Your task to perform on an android device: Empty the shopping cart on target. Search for bose quietcomfort 35 on target, select the first entry, add it to the cart, then select checkout. Image 0: 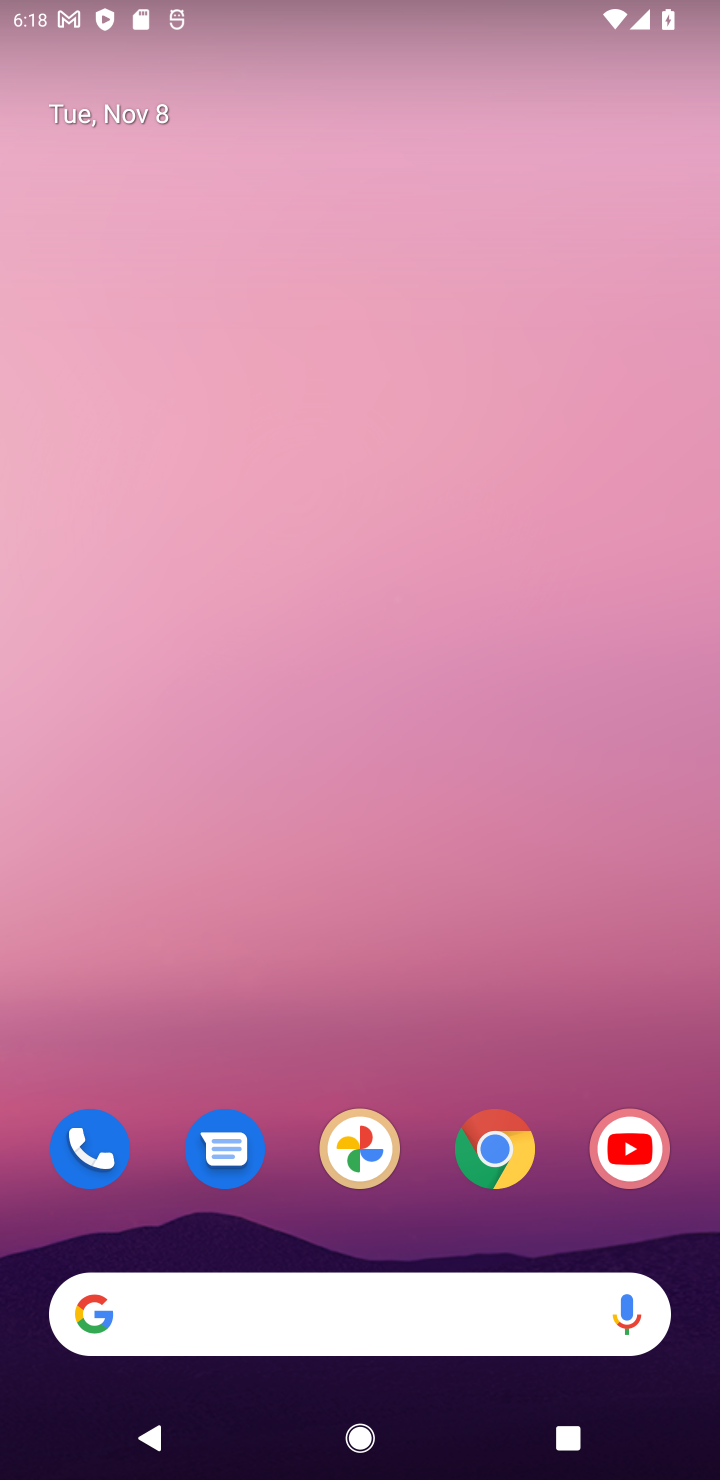
Step 0: click (486, 1156)
Your task to perform on an android device: Empty the shopping cart on target. Search for bose quietcomfort 35 on target, select the first entry, add it to the cart, then select checkout. Image 1: 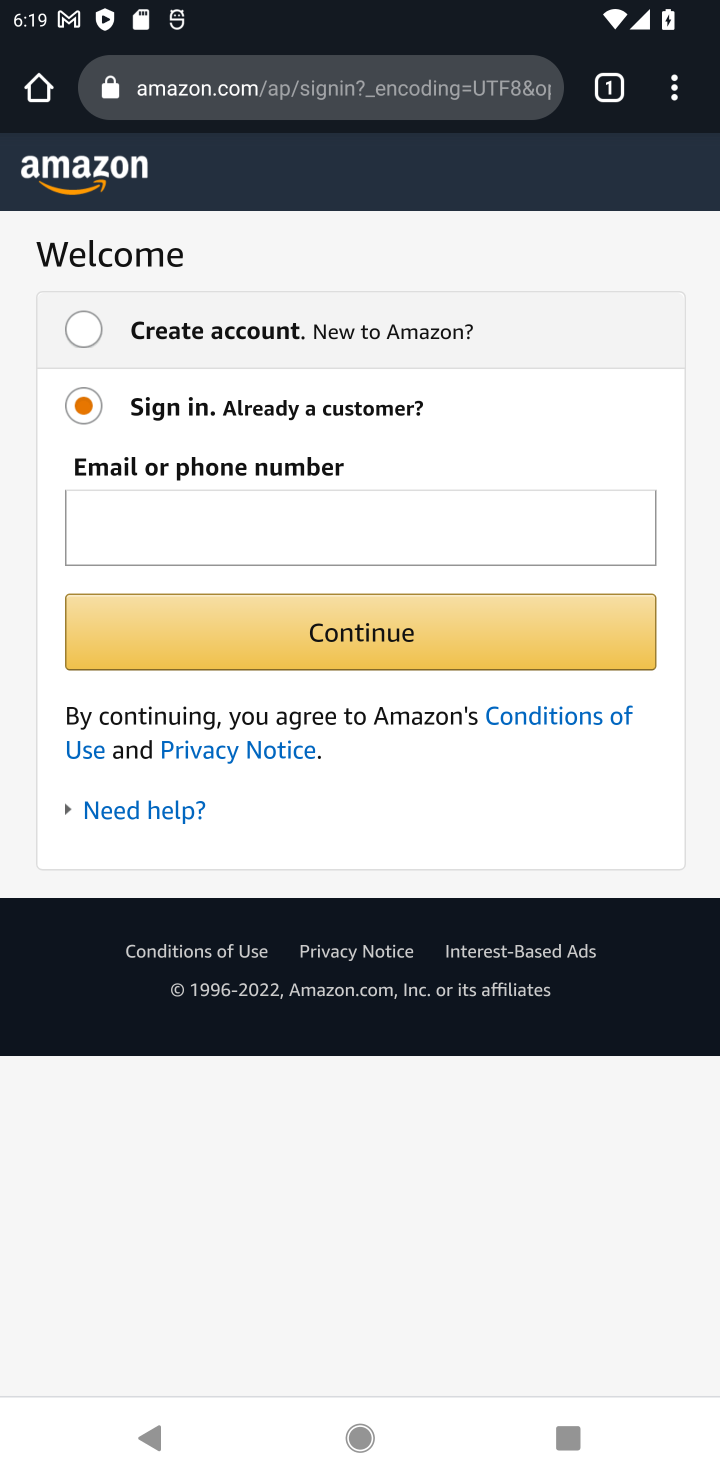
Step 1: click (347, 84)
Your task to perform on an android device: Empty the shopping cart on target. Search for bose quietcomfort 35 on target, select the first entry, add it to the cart, then select checkout. Image 2: 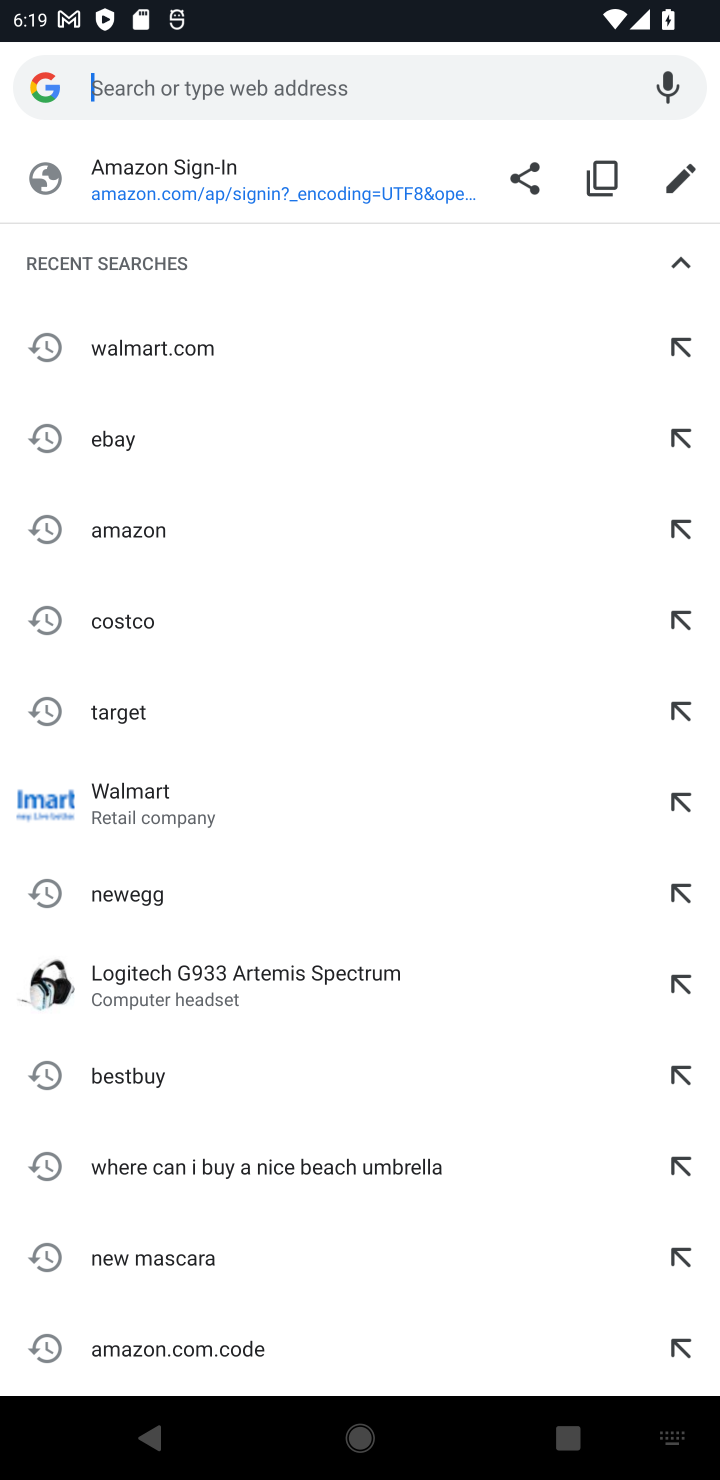
Step 2: type "target"
Your task to perform on an android device: Empty the shopping cart on target. Search for bose quietcomfort 35 on target, select the first entry, add it to the cart, then select checkout. Image 3: 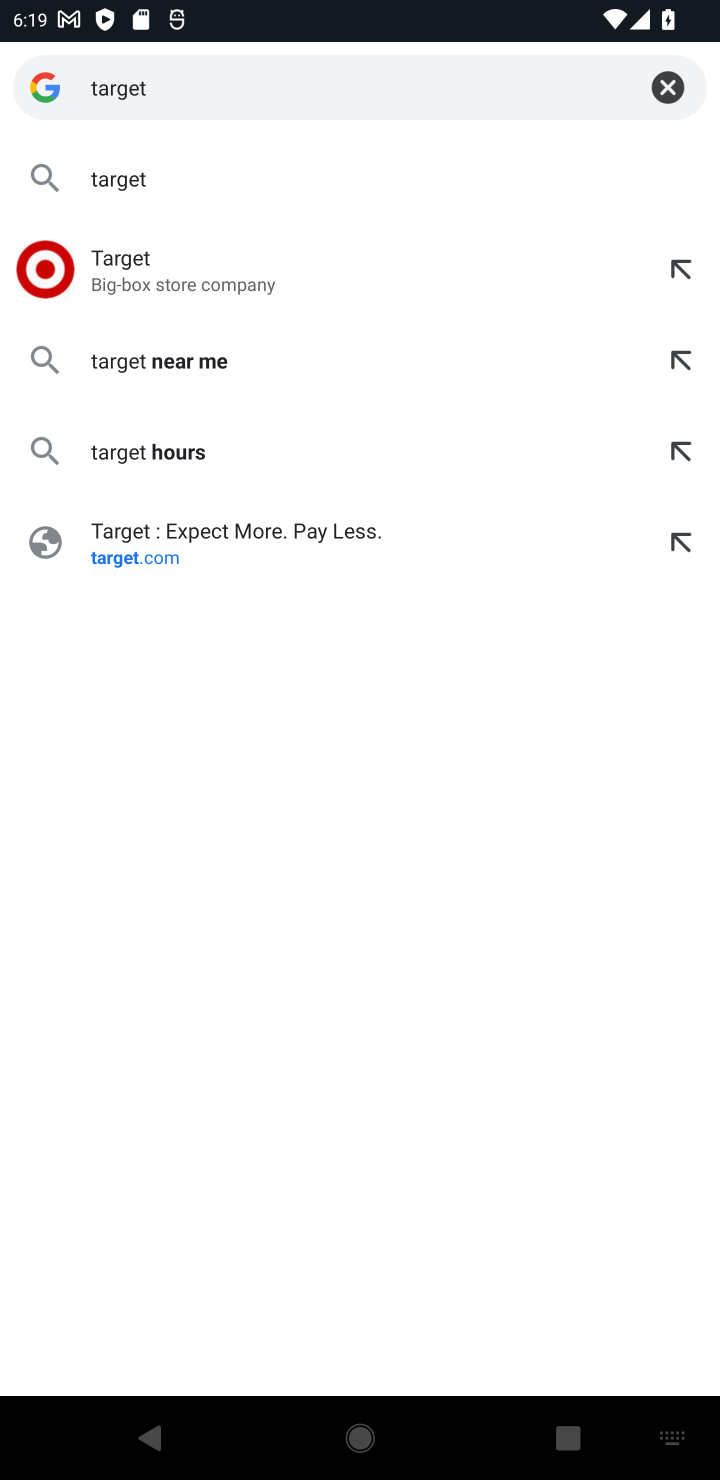
Step 3: click (214, 295)
Your task to perform on an android device: Empty the shopping cart on target. Search for bose quietcomfort 35 on target, select the first entry, add it to the cart, then select checkout. Image 4: 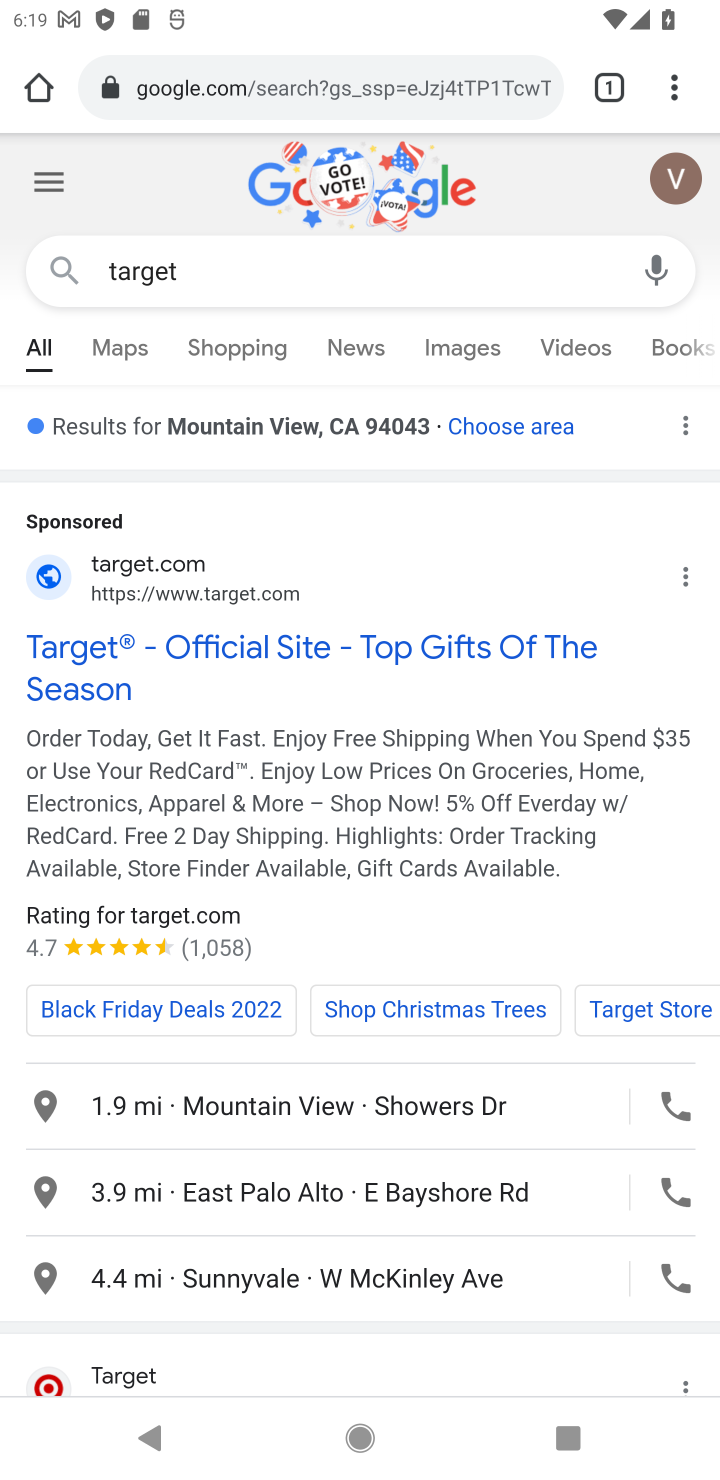
Step 4: click (220, 589)
Your task to perform on an android device: Empty the shopping cart on target. Search for bose quietcomfort 35 on target, select the first entry, add it to the cart, then select checkout. Image 5: 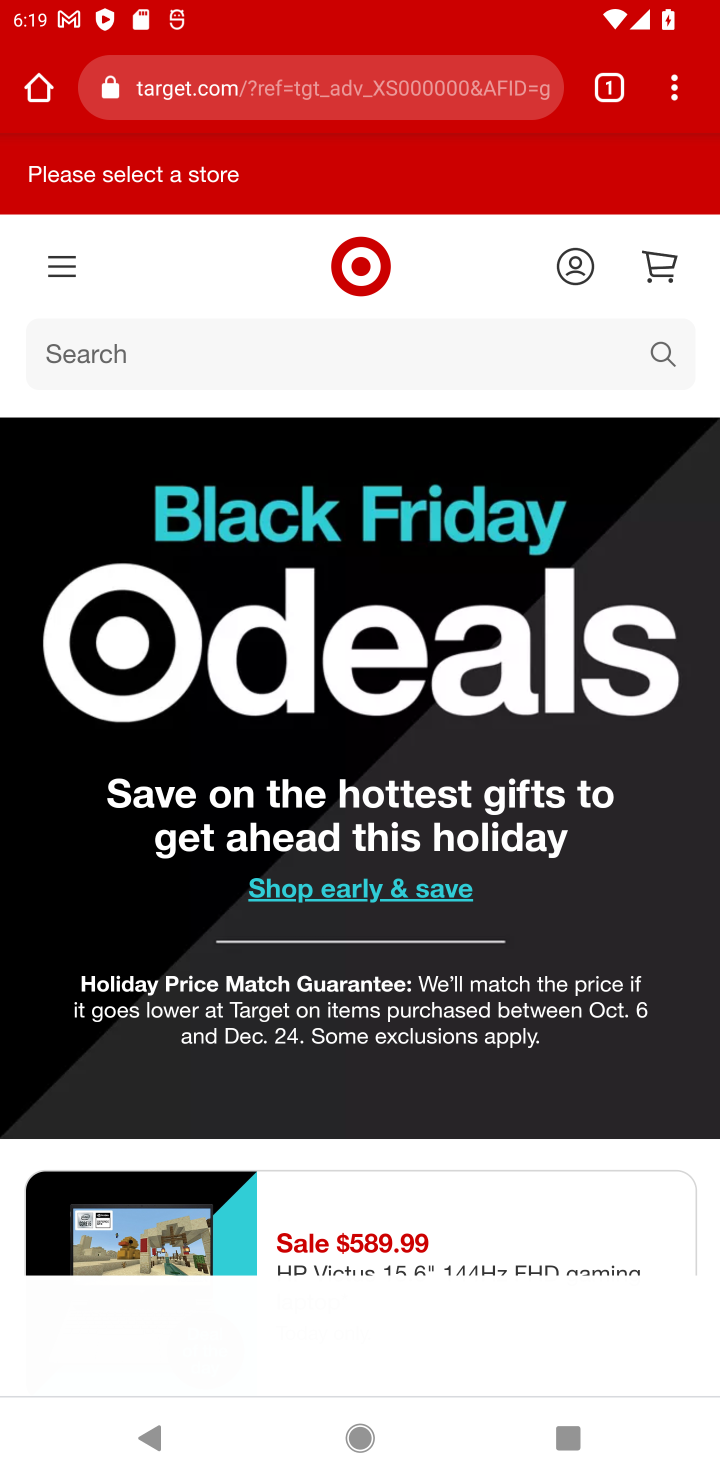
Step 5: click (658, 263)
Your task to perform on an android device: Empty the shopping cart on target. Search for bose quietcomfort 35 on target, select the first entry, add it to the cart, then select checkout. Image 6: 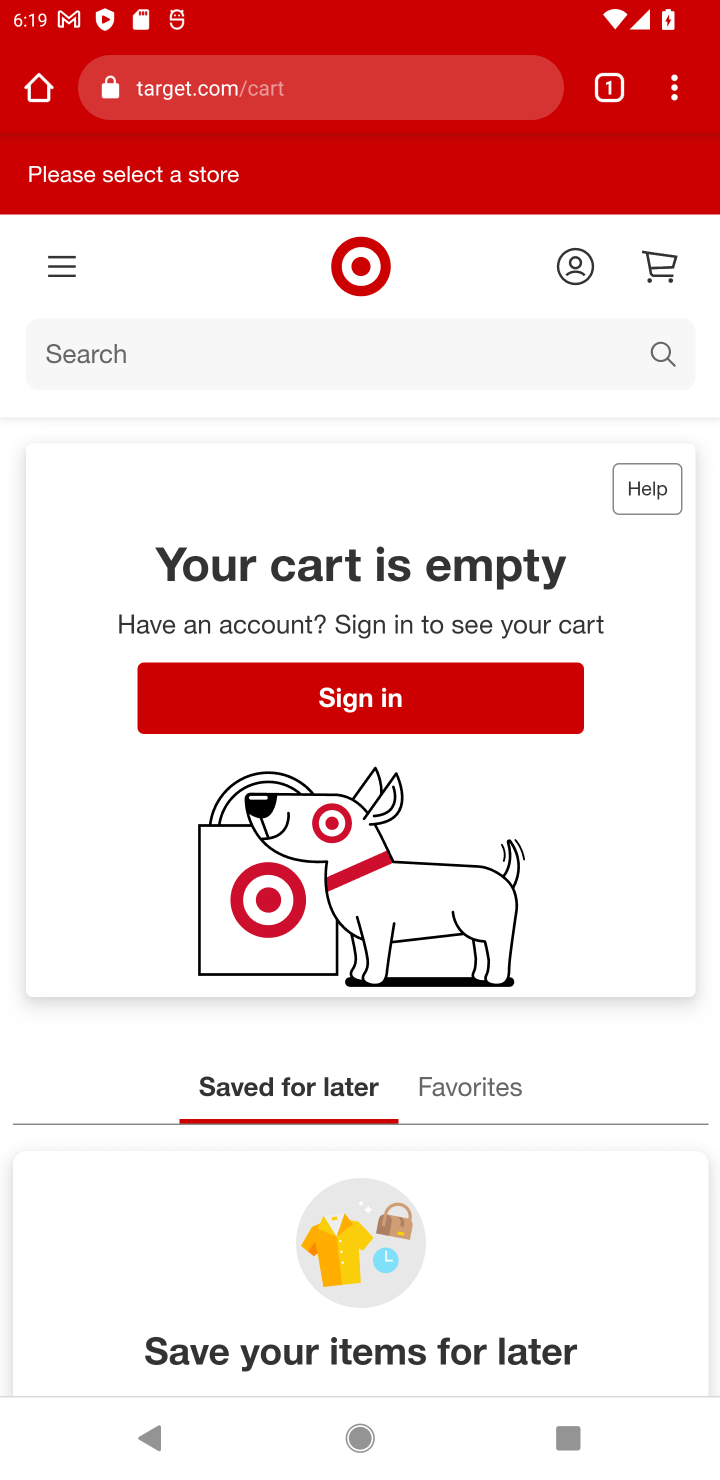
Step 6: click (663, 348)
Your task to perform on an android device: Empty the shopping cart on target. Search for bose quietcomfort 35 on target, select the first entry, add it to the cart, then select checkout. Image 7: 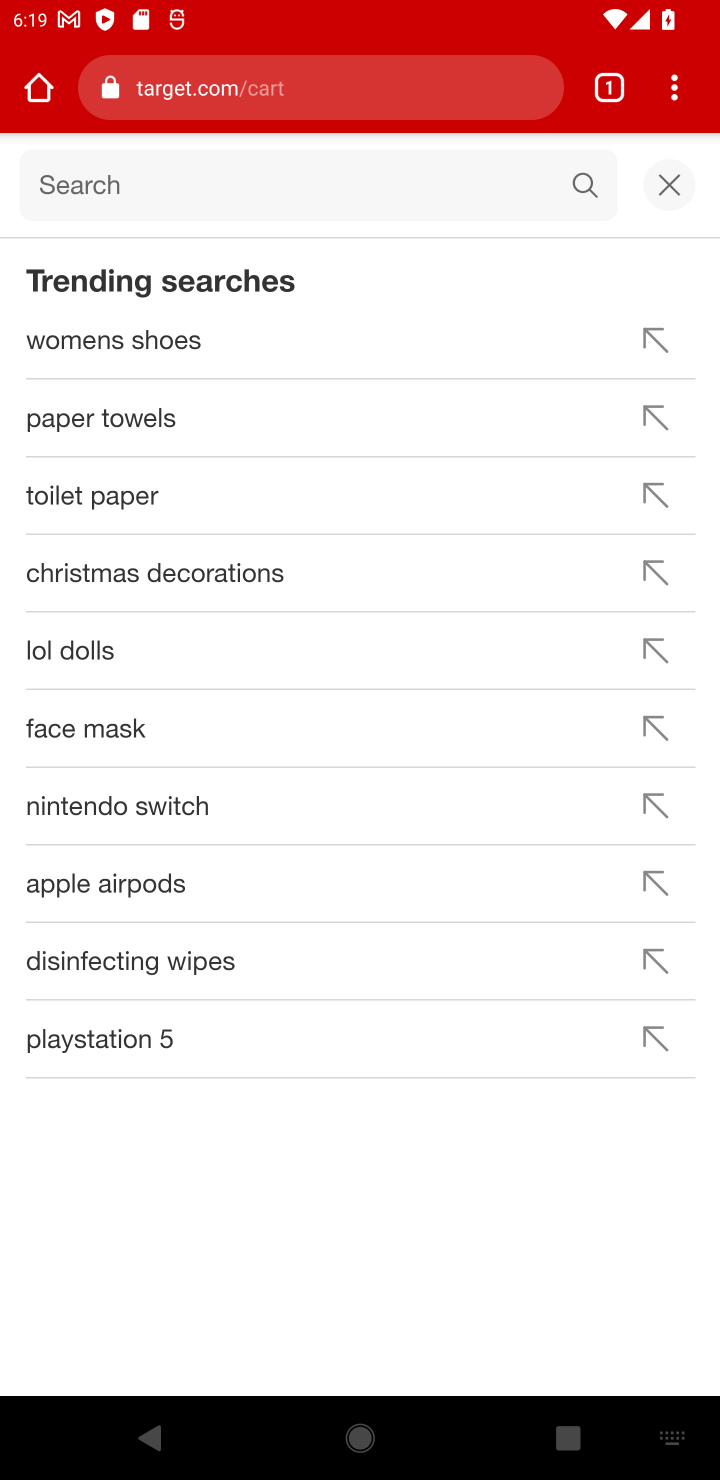
Step 7: type "bose quietcomfort 35"
Your task to perform on an android device: Empty the shopping cart on target. Search for bose quietcomfort 35 on target, select the first entry, add it to the cart, then select checkout. Image 8: 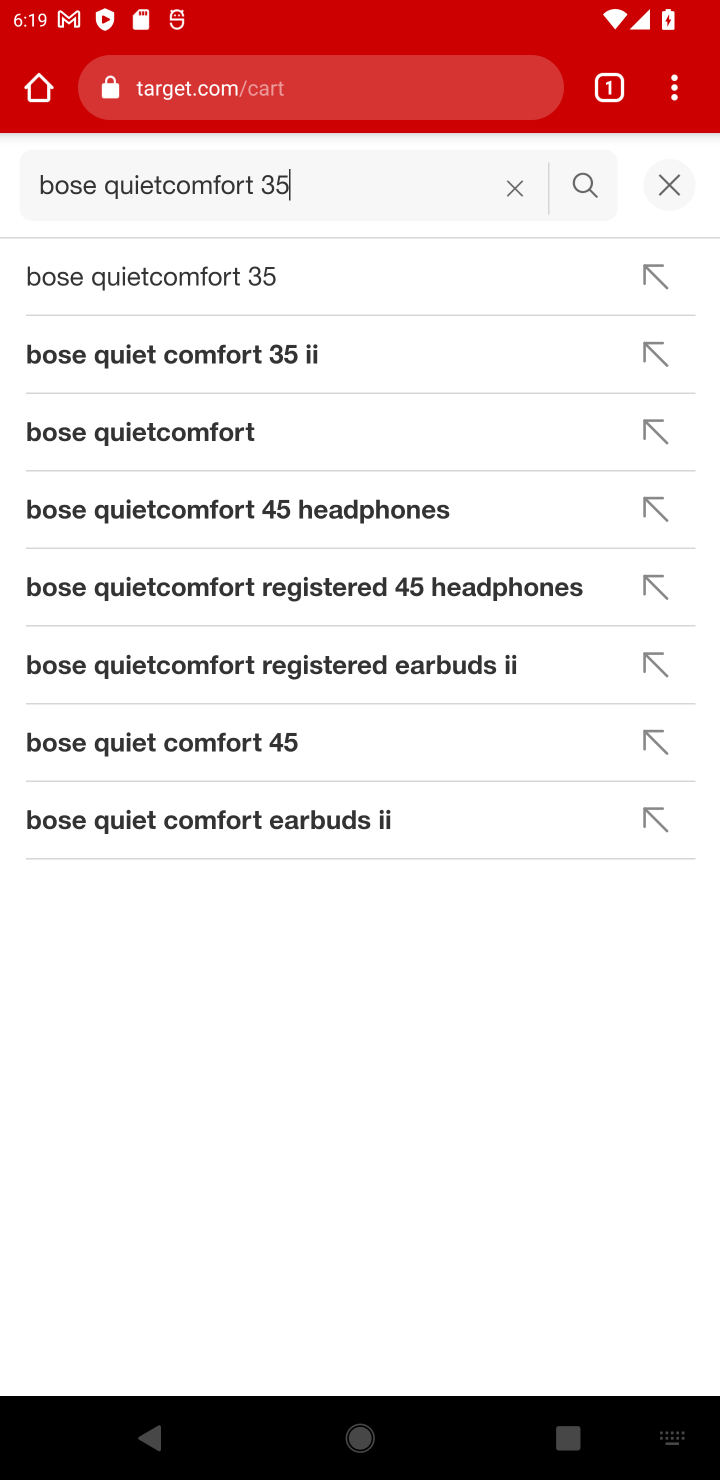
Step 8: click (218, 269)
Your task to perform on an android device: Empty the shopping cart on target. Search for bose quietcomfort 35 on target, select the first entry, add it to the cart, then select checkout. Image 9: 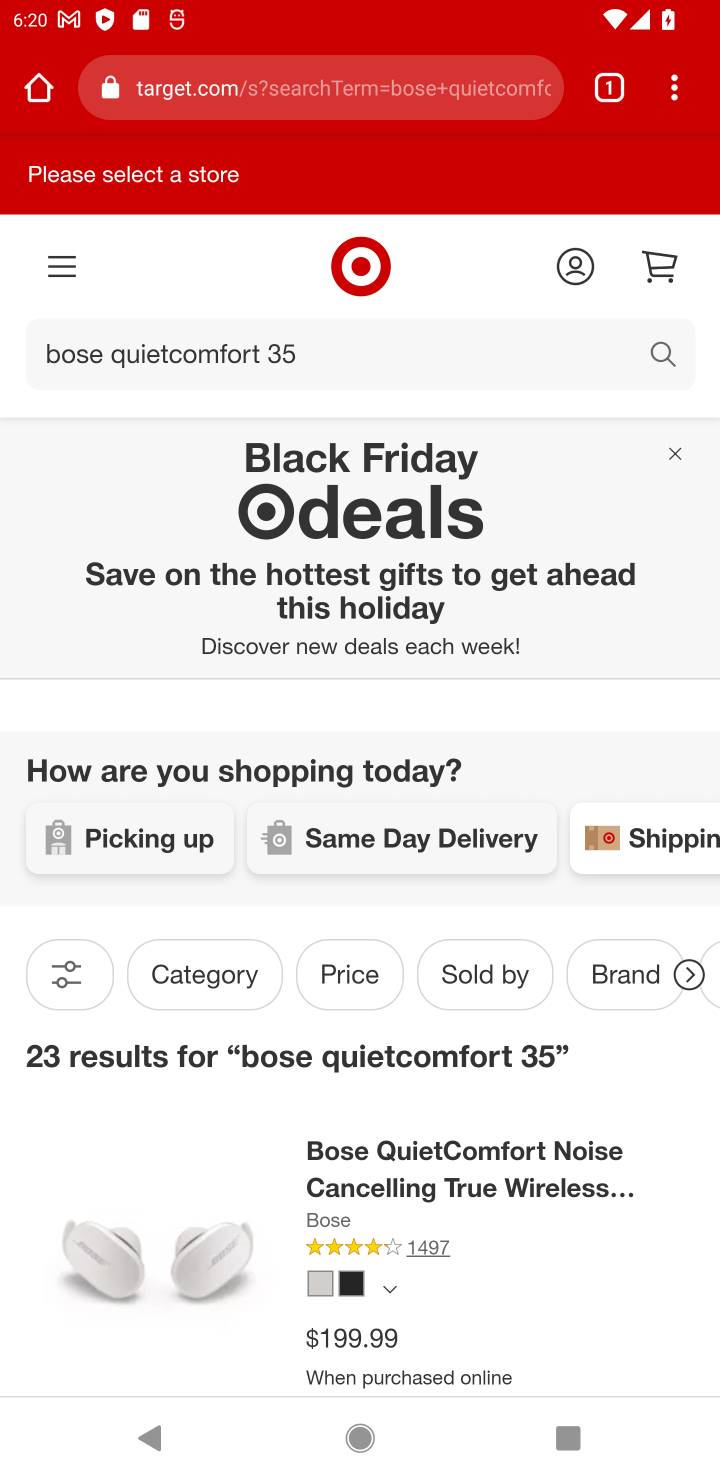
Step 9: task complete